Your task to perform on an android device: Search for vegetarian restaurants on Maps Image 0: 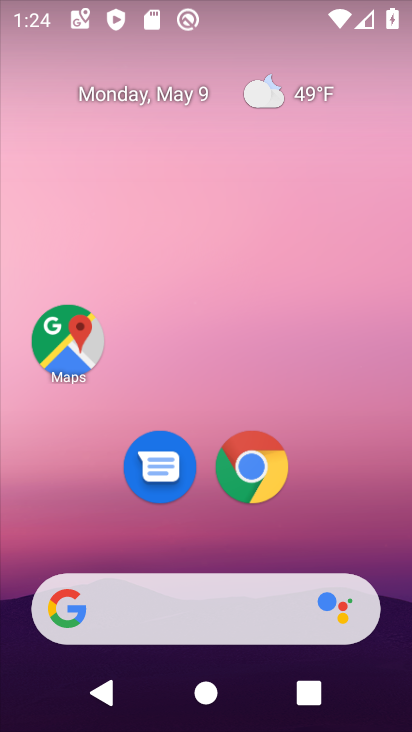
Step 0: drag from (377, 488) to (379, 103)
Your task to perform on an android device: Search for vegetarian restaurants on Maps Image 1: 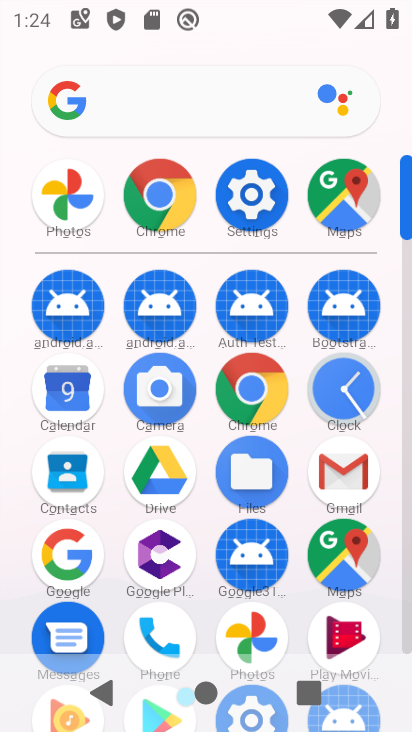
Step 1: click (340, 563)
Your task to perform on an android device: Search for vegetarian restaurants on Maps Image 2: 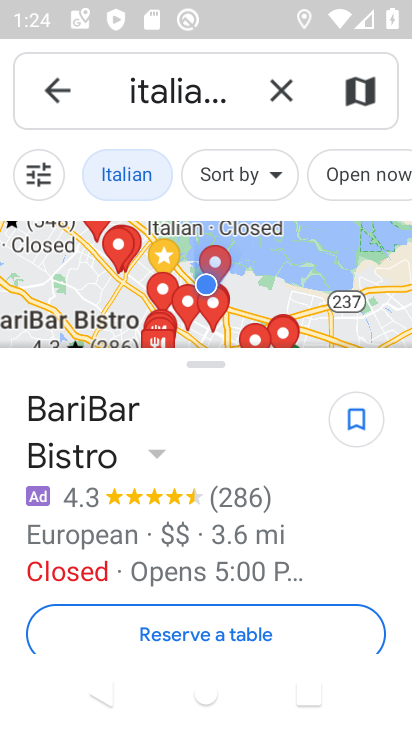
Step 2: click (267, 102)
Your task to perform on an android device: Search for vegetarian restaurants on Maps Image 3: 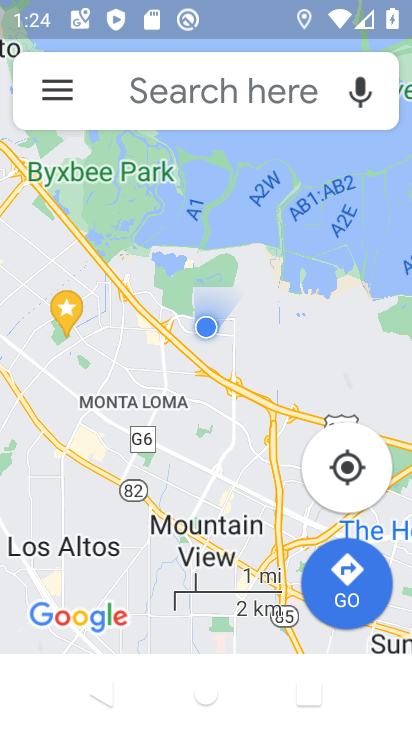
Step 3: click (172, 95)
Your task to perform on an android device: Search for vegetarian restaurants on Maps Image 4: 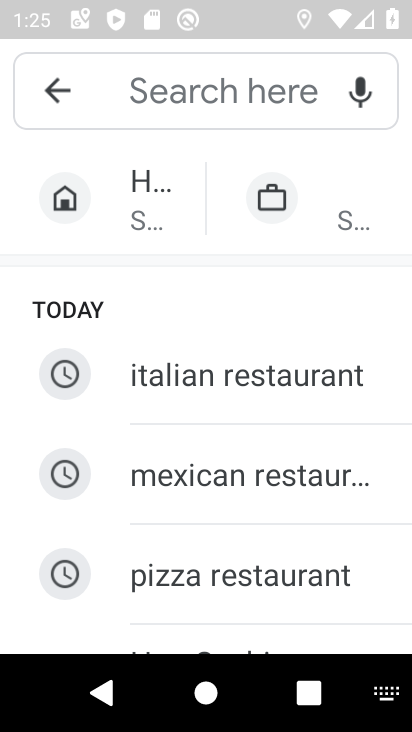
Step 4: type "vegetarian restaurants"
Your task to perform on an android device: Search for vegetarian restaurants on Maps Image 5: 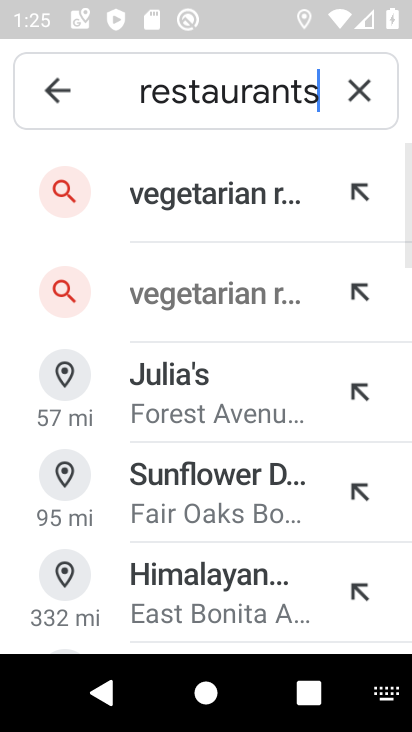
Step 5: click (225, 209)
Your task to perform on an android device: Search for vegetarian restaurants on Maps Image 6: 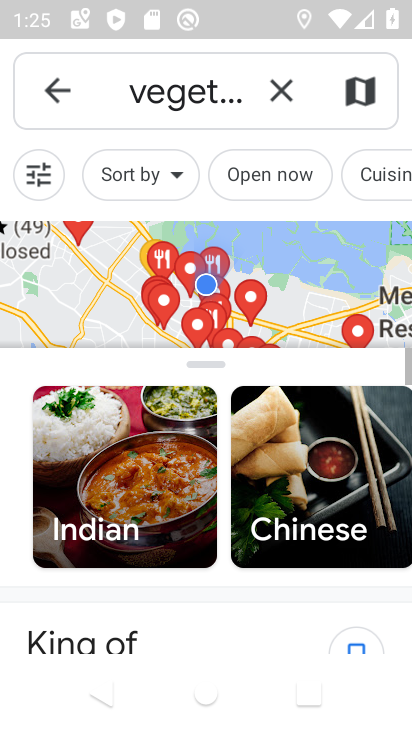
Step 6: task complete